Your task to perform on an android device: Check my gmail Image 0: 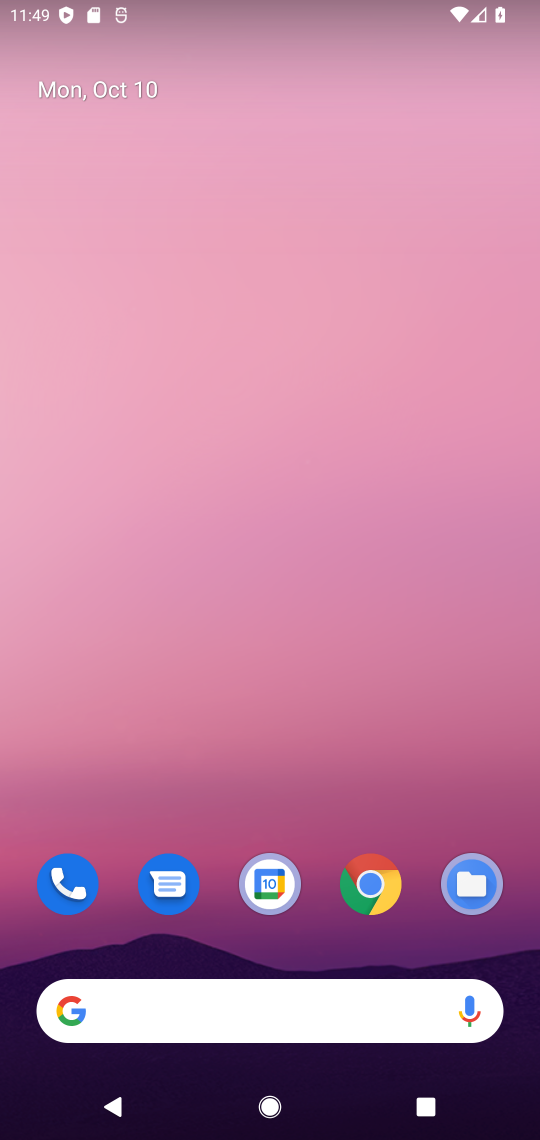
Step 0: drag from (269, 1005) to (370, 517)
Your task to perform on an android device: Check my gmail Image 1: 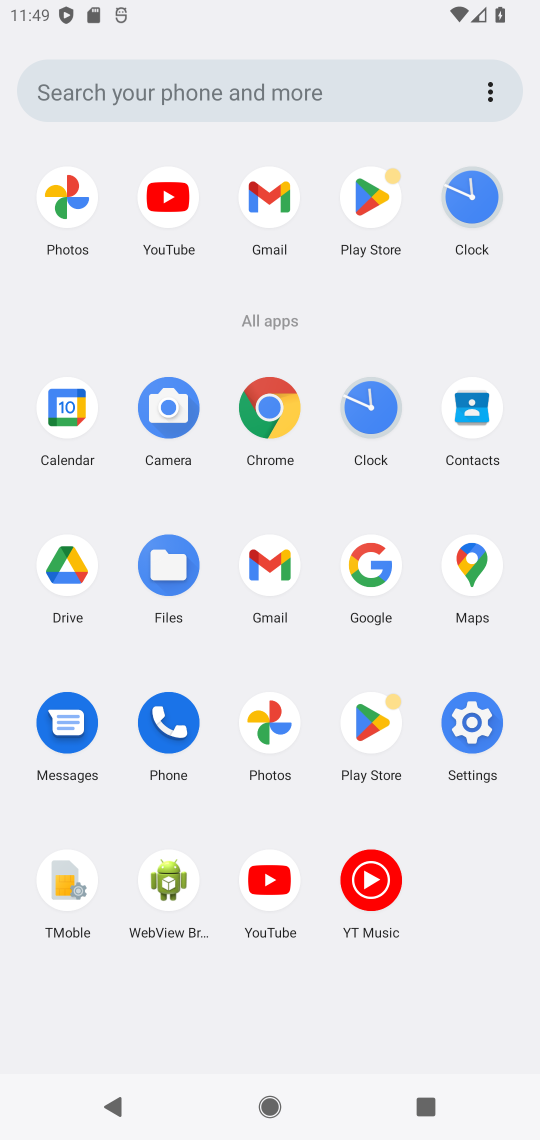
Step 1: click (275, 576)
Your task to perform on an android device: Check my gmail Image 2: 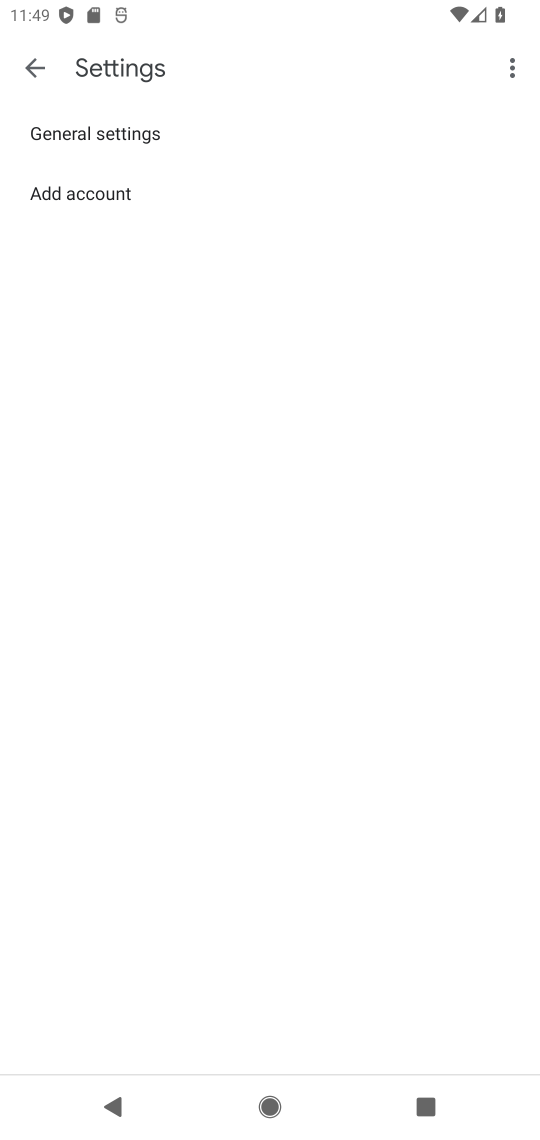
Step 2: click (24, 71)
Your task to perform on an android device: Check my gmail Image 3: 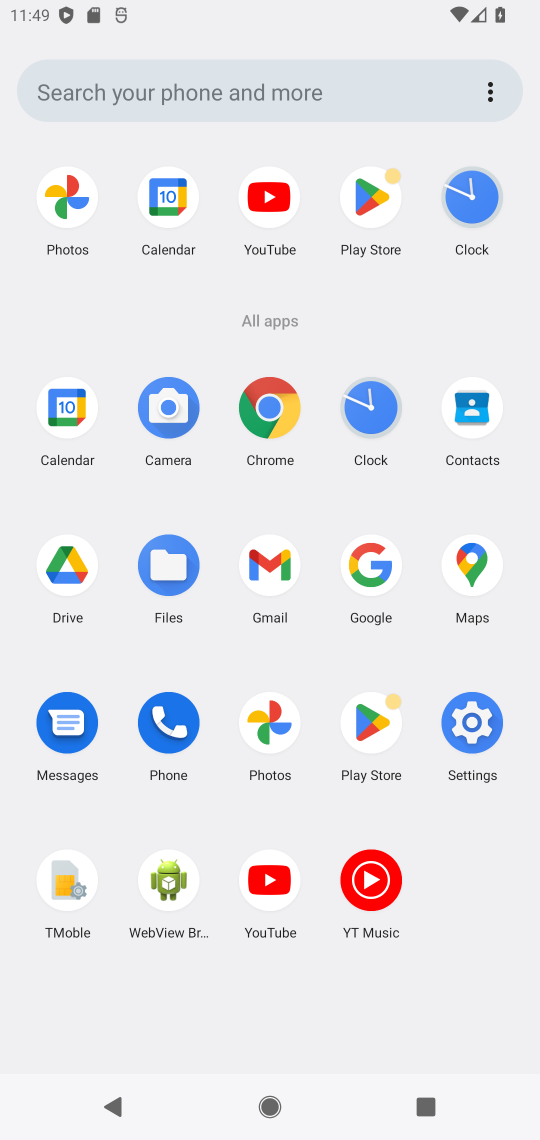
Step 3: click (280, 586)
Your task to perform on an android device: Check my gmail Image 4: 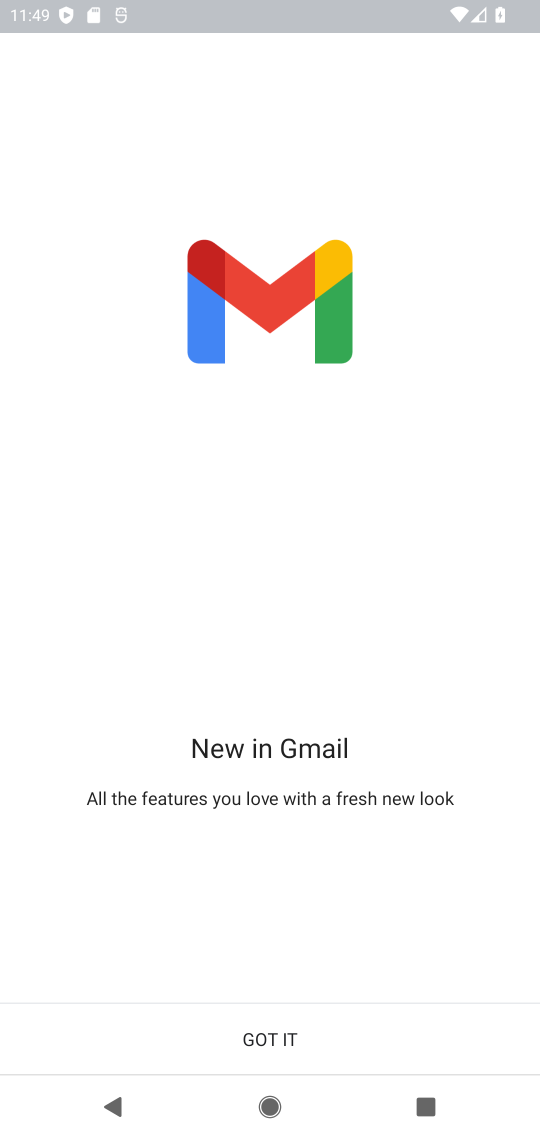
Step 4: click (268, 1033)
Your task to perform on an android device: Check my gmail Image 5: 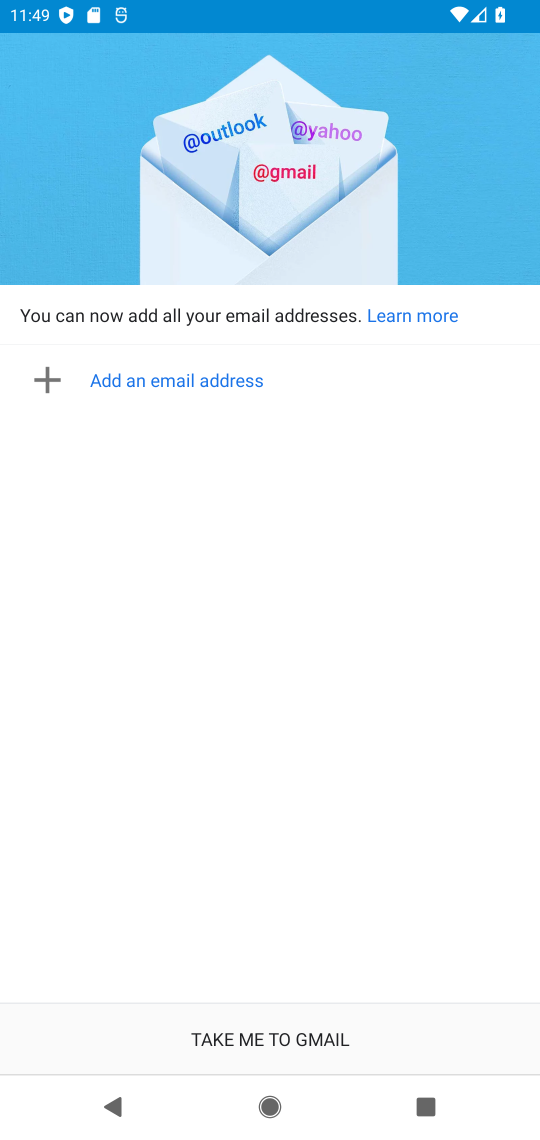
Step 5: click (292, 1053)
Your task to perform on an android device: Check my gmail Image 6: 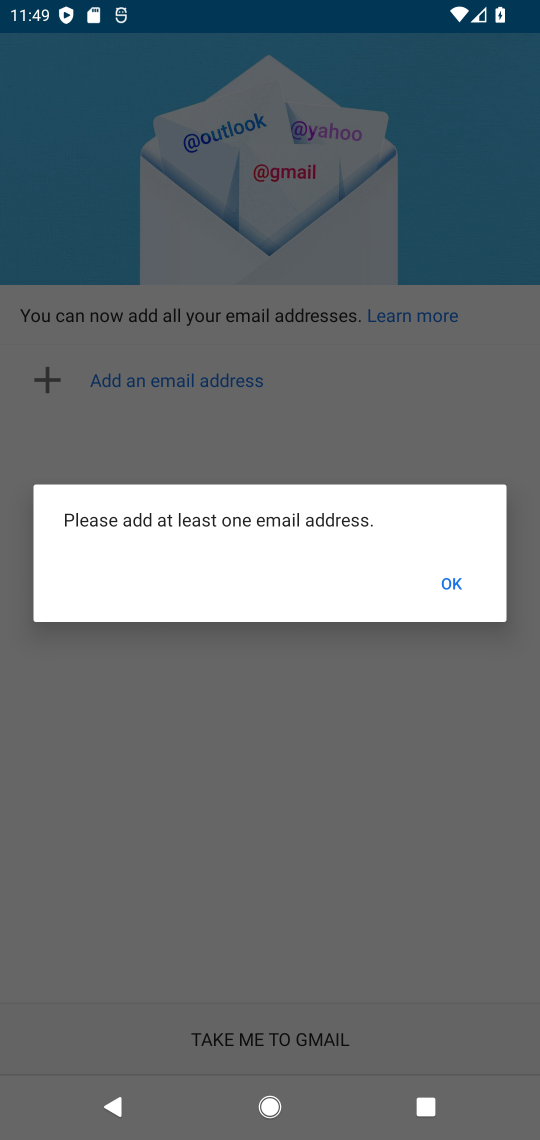
Step 6: click (440, 581)
Your task to perform on an android device: Check my gmail Image 7: 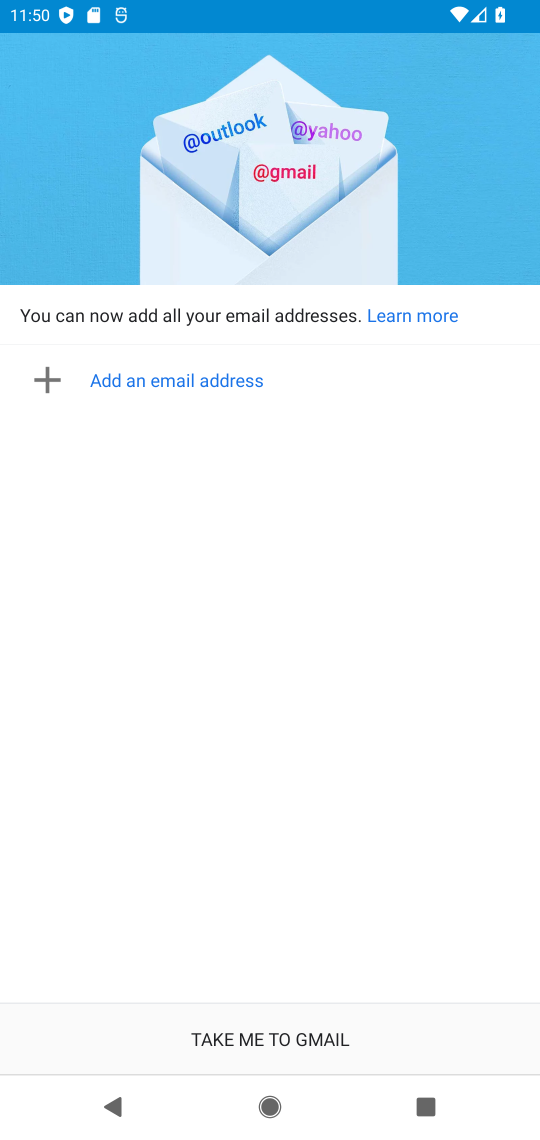
Step 7: task complete